Your task to perform on an android device: Open wifi settings Image 0: 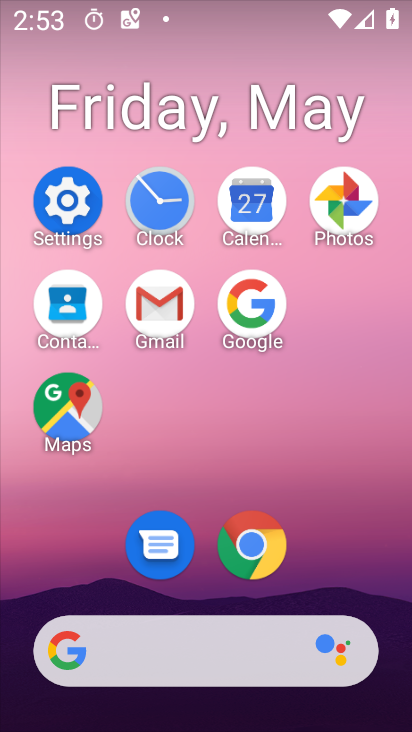
Step 0: click (68, 207)
Your task to perform on an android device: Open wifi settings Image 1: 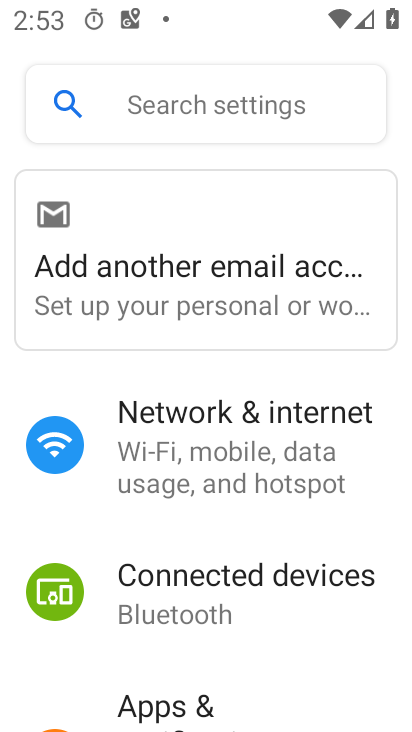
Step 1: drag from (236, 652) to (190, 216)
Your task to perform on an android device: Open wifi settings Image 2: 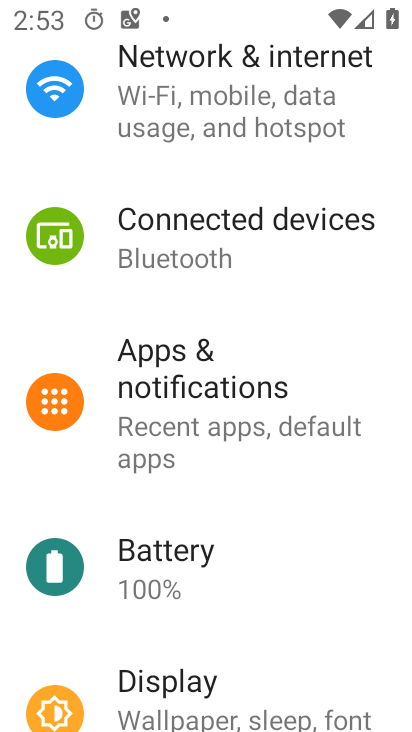
Step 2: click (227, 119)
Your task to perform on an android device: Open wifi settings Image 3: 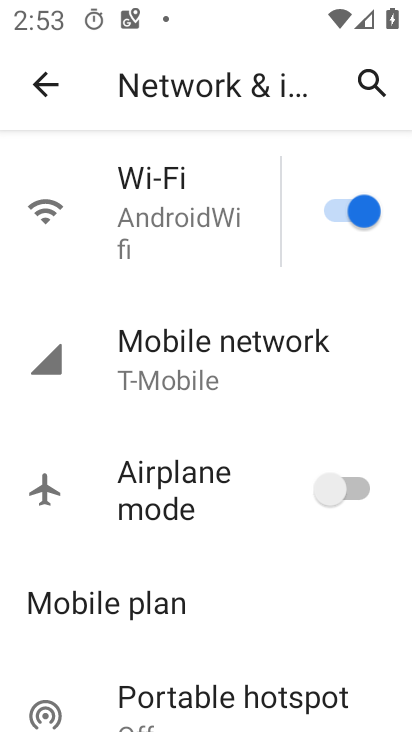
Step 3: click (194, 196)
Your task to perform on an android device: Open wifi settings Image 4: 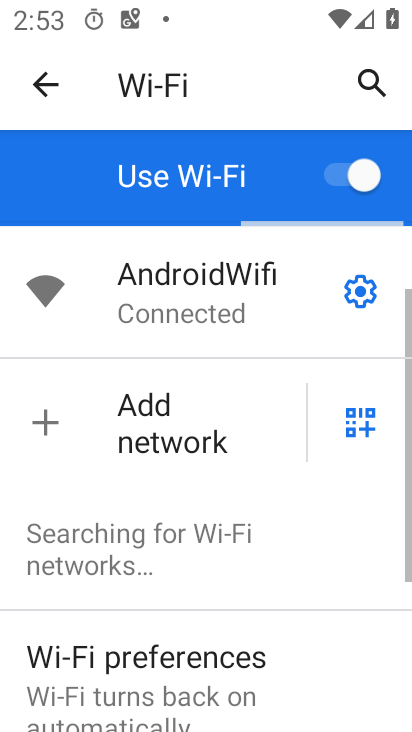
Step 4: click (367, 276)
Your task to perform on an android device: Open wifi settings Image 5: 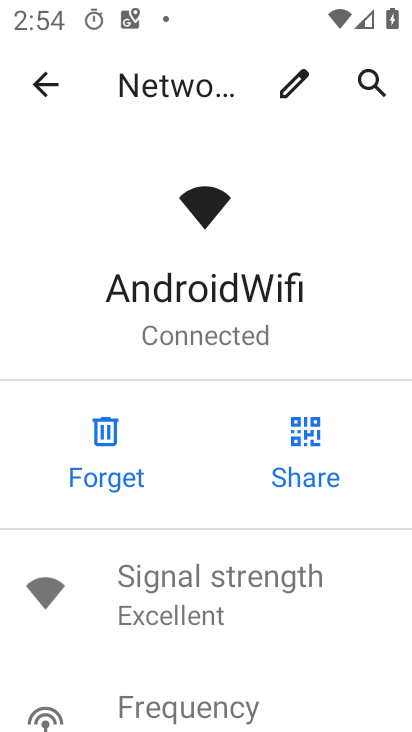
Step 5: task complete